Your task to perform on an android device: Go to Google maps Image 0: 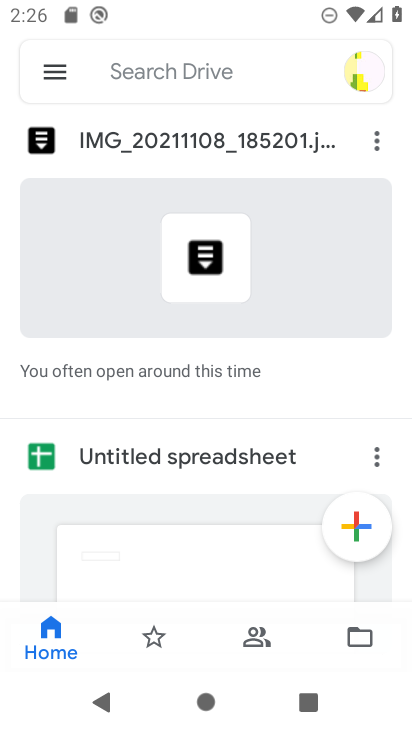
Step 0: press home button
Your task to perform on an android device: Go to Google maps Image 1: 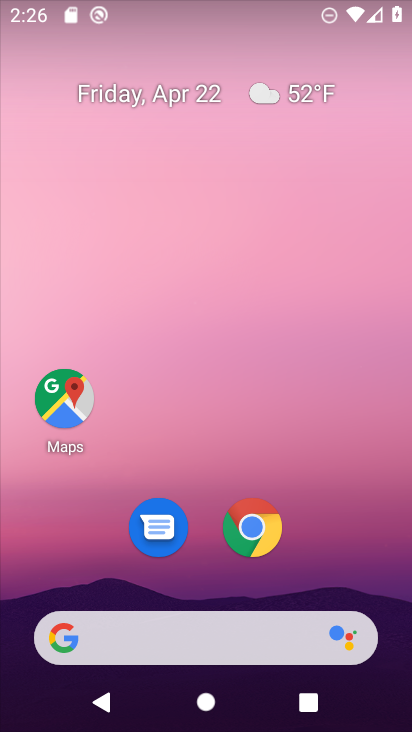
Step 1: drag from (328, 490) to (324, 121)
Your task to perform on an android device: Go to Google maps Image 2: 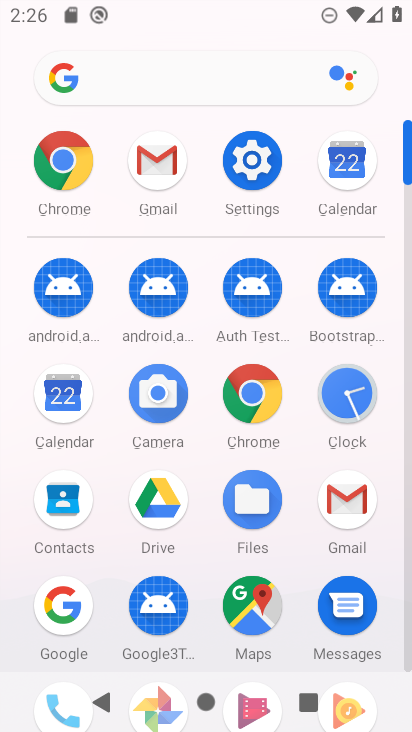
Step 2: drag from (296, 407) to (348, 21)
Your task to perform on an android device: Go to Google maps Image 3: 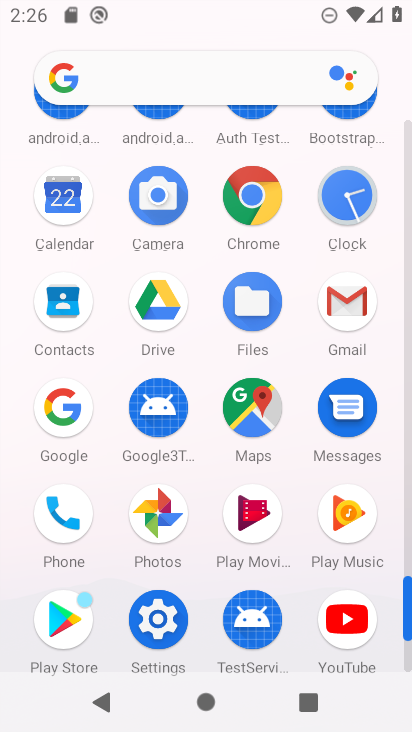
Step 3: click (266, 408)
Your task to perform on an android device: Go to Google maps Image 4: 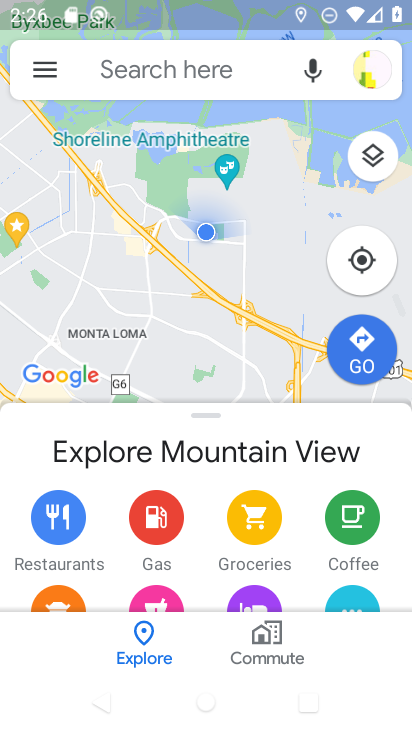
Step 4: task complete